Your task to perform on an android device: turn on translation in the chrome app Image 0: 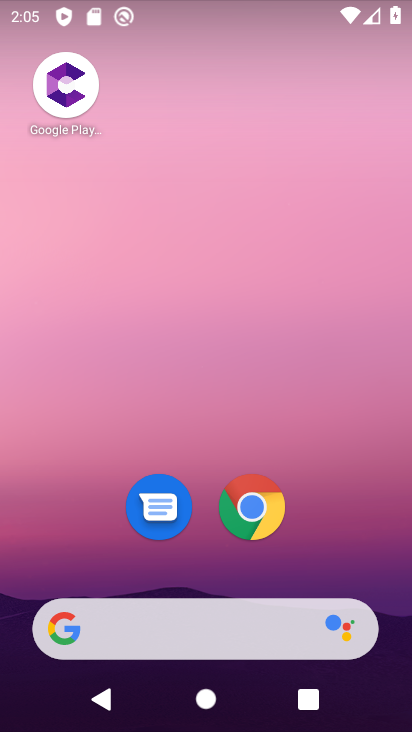
Step 0: click (265, 511)
Your task to perform on an android device: turn on translation in the chrome app Image 1: 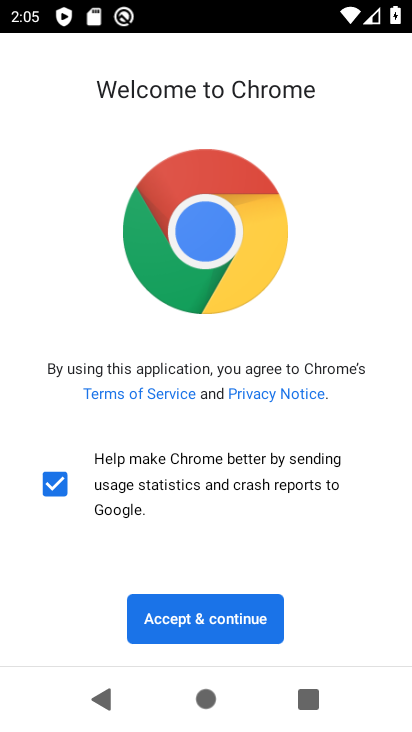
Step 1: click (216, 617)
Your task to perform on an android device: turn on translation in the chrome app Image 2: 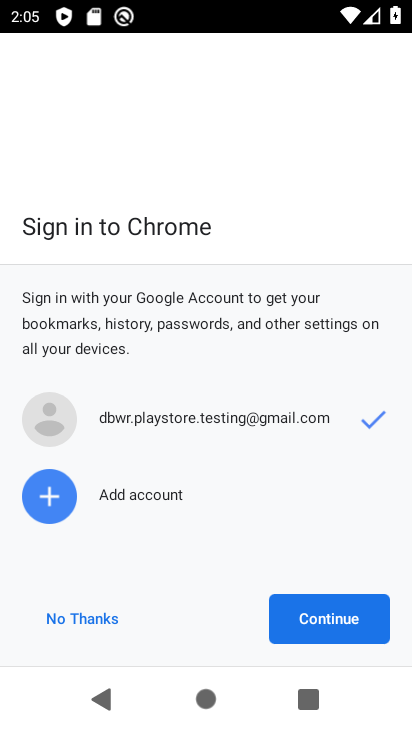
Step 2: click (313, 619)
Your task to perform on an android device: turn on translation in the chrome app Image 3: 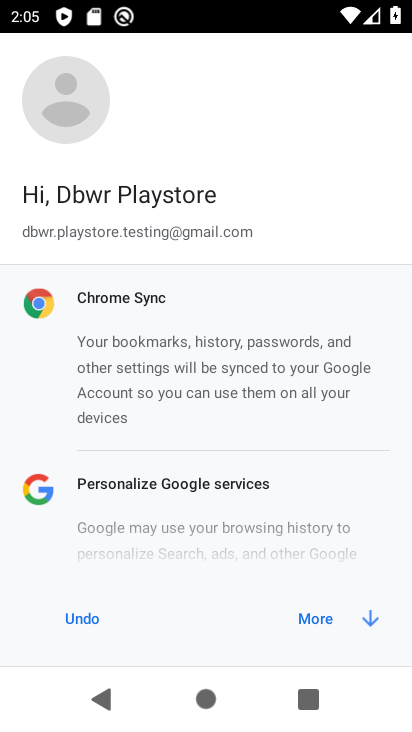
Step 3: click (319, 618)
Your task to perform on an android device: turn on translation in the chrome app Image 4: 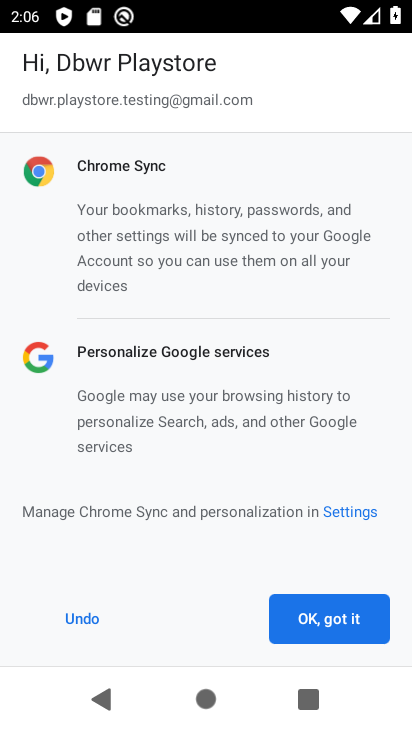
Step 4: click (325, 615)
Your task to perform on an android device: turn on translation in the chrome app Image 5: 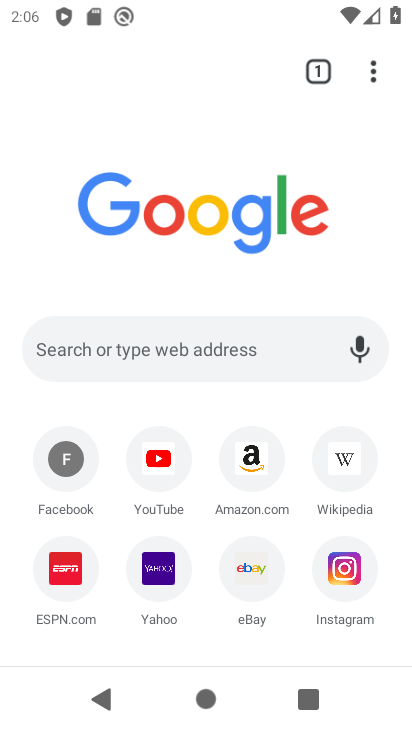
Step 5: click (375, 75)
Your task to perform on an android device: turn on translation in the chrome app Image 6: 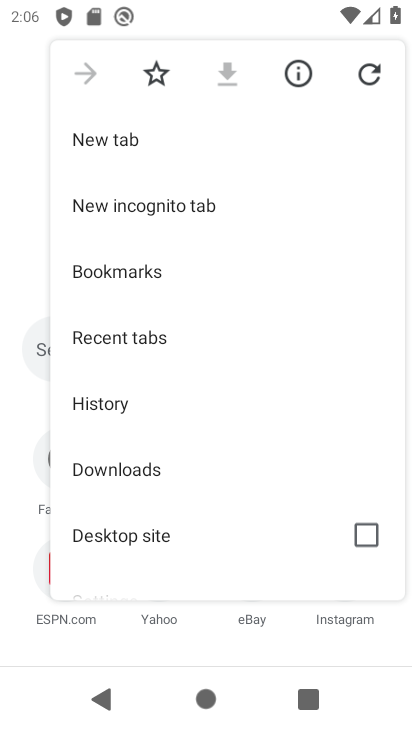
Step 6: drag from (214, 464) to (230, 38)
Your task to perform on an android device: turn on translation in the chrome app Image 7: 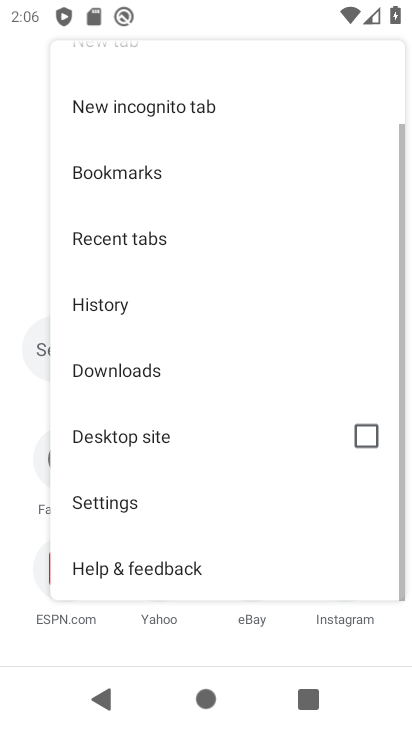
Step 7: click (145, 513)
Your task to perform on an android device: turn on translation in the chrome app Image 8: 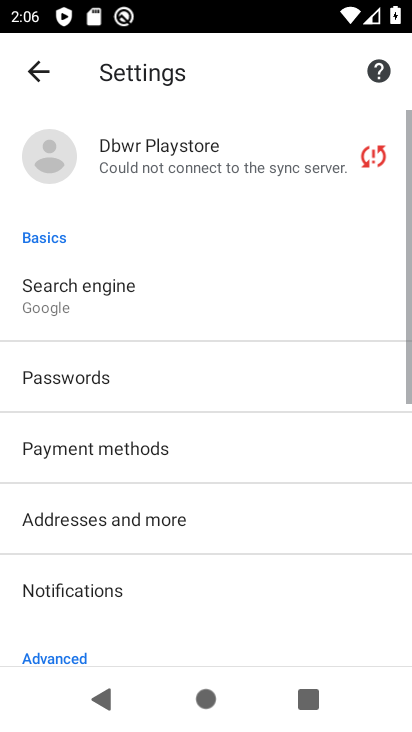
Step 8: task complete